Your task to perform on an android device: Open Chrome and go to the settings page Image 0: 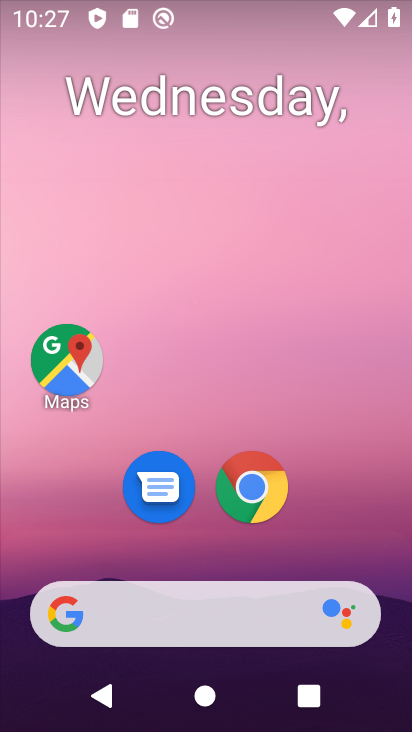
Step 0: click (262, 487)
Your task to perform on an android device: Open Chrome and go to the settings page Image 1: 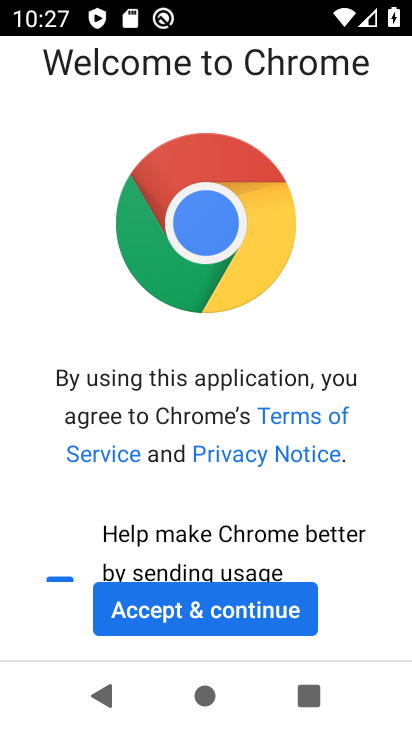
Step 1: click (204, 609)
Your task to perform on an android device: Open Chrome and go to the settings page Image 2: 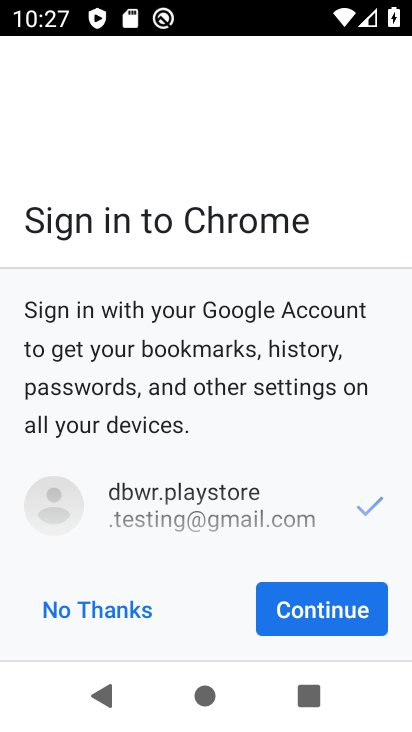
Step 2: click (305, 618)
Your task to perform on an android device: Open Chrome and go to the settings page Image 3: 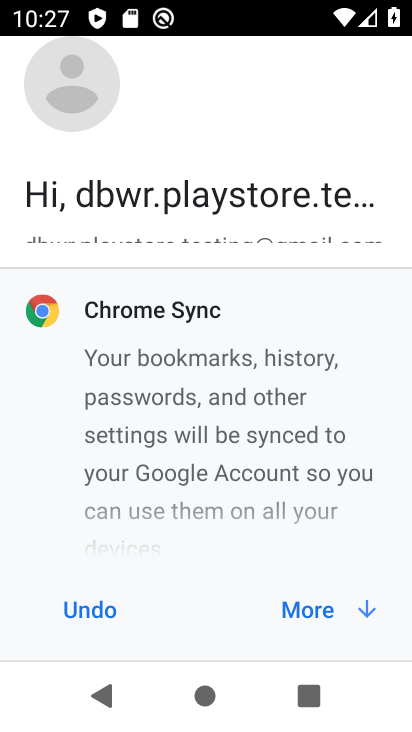
Step 3: click (334, 616)
Your task to perform on an android device: Open Chrome and go to the settings page Image 4: 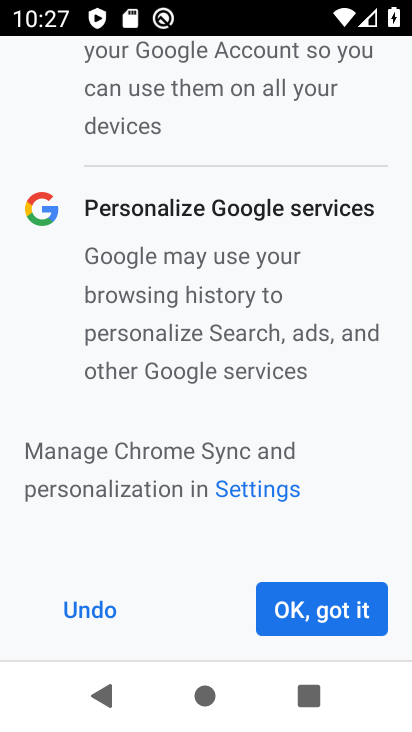
Step 4: click (336, 625)
Your task to perform on an android device: Open Chrome and go to the settings page Image 5: 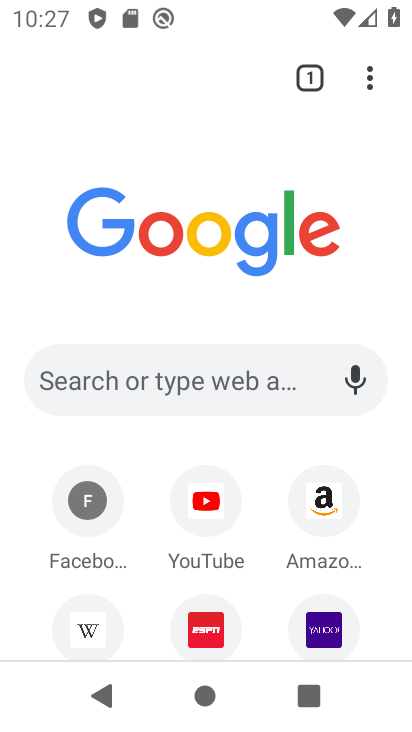
Step 5: task complete